Your task to perform on an android device: create a new album in the google photos Image 0: 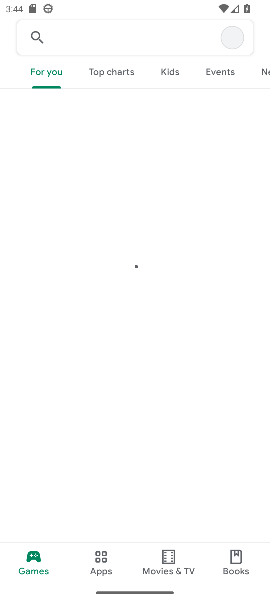
Step 0: press home button
Your task to perform on an android device: create a new album in the google photos Image 1: 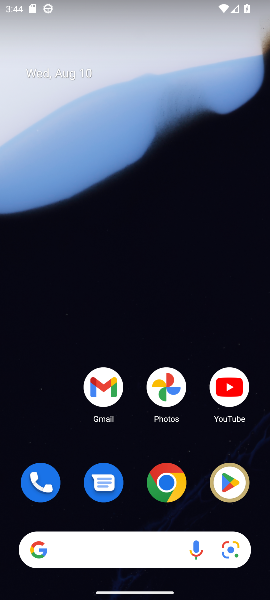
Step 1: drag from (142, 503) to (148, 124)
Your task to perform on an android device: create a new album in the google photos Image 2: 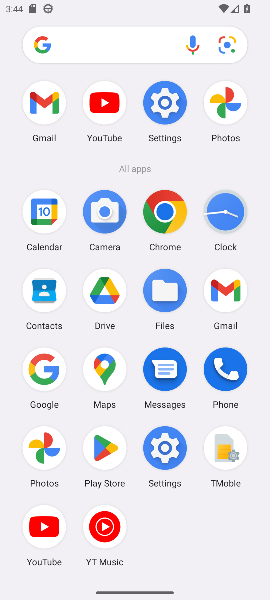
Step 2: click (44, 443)
Your task to perform on an android device: create a new album in the google photos Image 3: 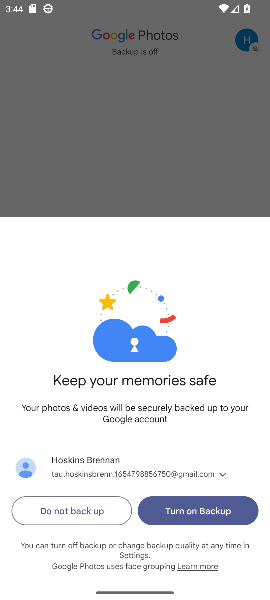
Step 3: click (95, 163)
Your task to perform on an android device: create a new album in the google photos Image 4: 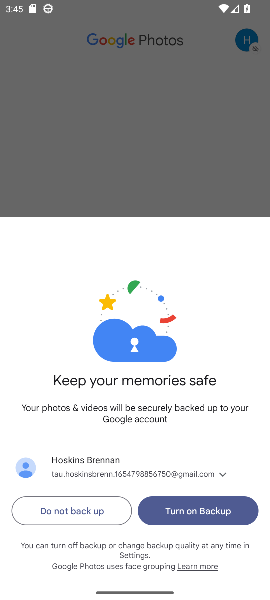
Step 4: click (239, 165)
Your task to perform on an android device: create a new album in the google photos Image 5: 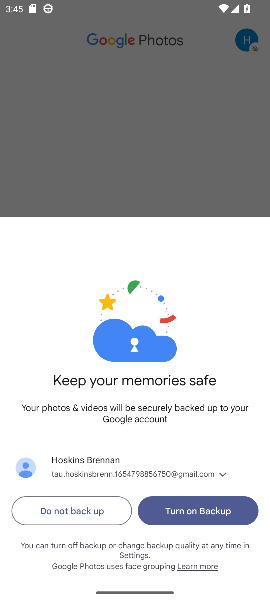
Step 5: click (189, 510)
Your task to perform on an android device: create a new album in the google photos Image 6: 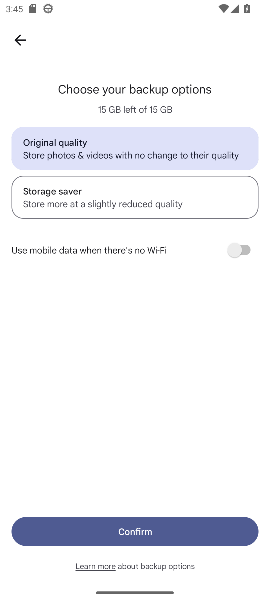
Step 6: click (161, 524)
Your task to perform on an android device: create a new album in the google photos Image 7: 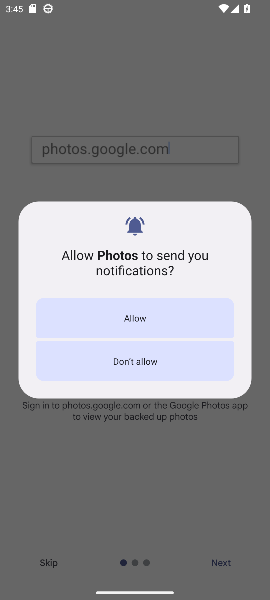
Step 7: click (165, 317)
Your task to perform on an android device: create a new album in the google photos Image 8: 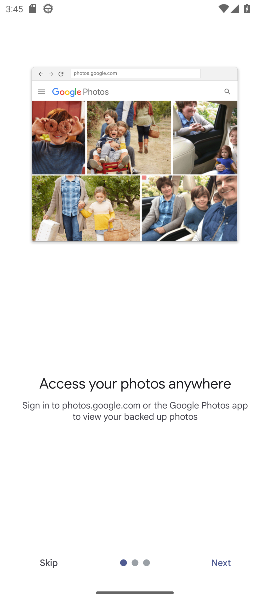
Step 8: click (215, 553)
Your task to perform on an android device: create a new album in the google photos Image 9: 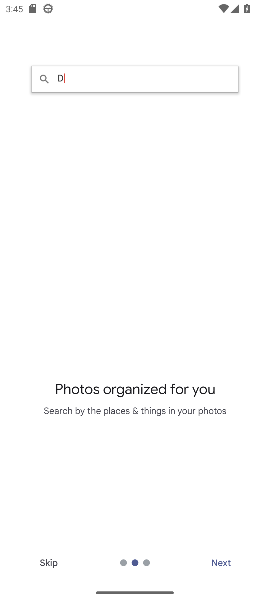
Step 9: click (215, 553)
Your task to perform on an android device: create a new album in the google photos Image 10: 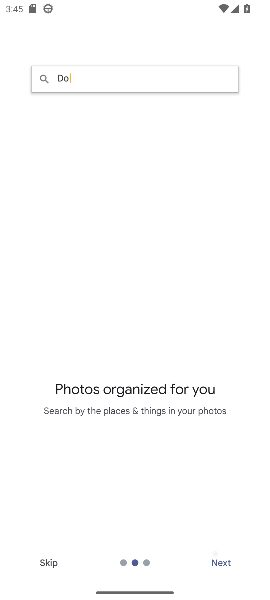
Step 10: click (215, 553)
Your task to perform on an android device: create a new album in the google photos Image 11: 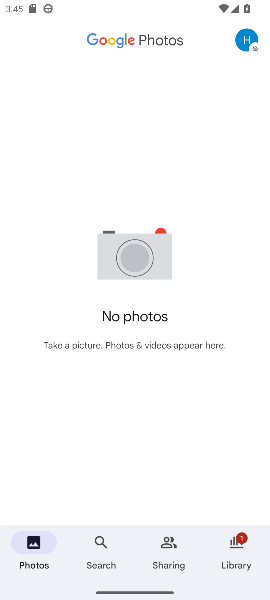
Step 11: click (215, 553)
Your task to perform on an android device: create a new album in the google photos Image 12: 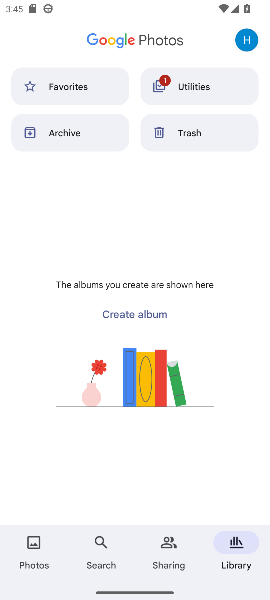
Step 12: click (35, 544)
Your task to perform on an android device: create a new album in the google photos Image 13: 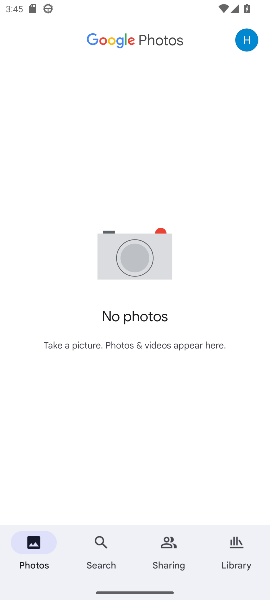
Step 13: task complete